Your task to perform on an android device: Show me popular videos on Youtube Image 0: 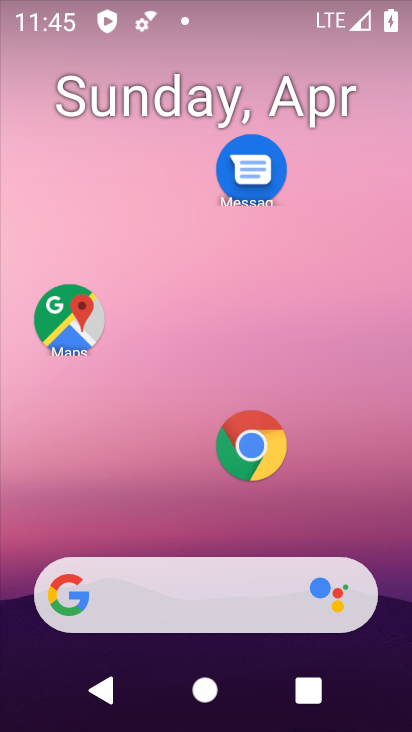
Step 0: drag from (157, 602) to (295, 147)
Your task to perform on an android device: Show me popular videos on Youtube Image 1: 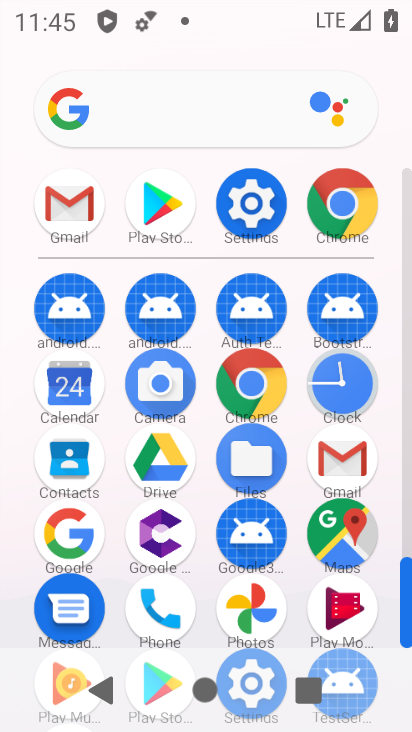
Step 1: drag from (196, 652) to (345, 302)
Your task to perform on an android device: Show me popular videos on Youtube Image 2: 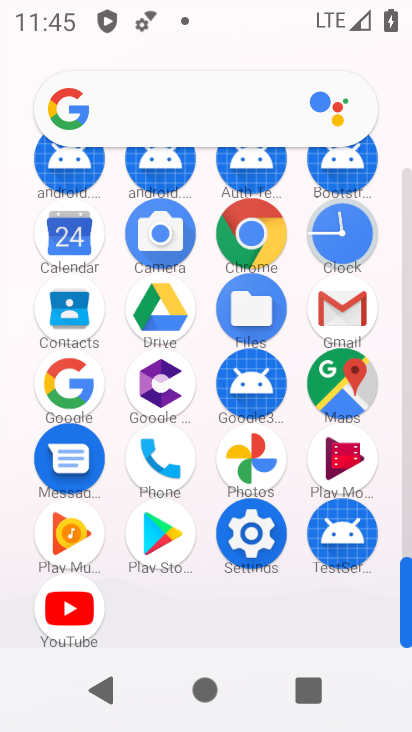
Step 2: click (72, 613)
Your task to perform on an android device: Show me popular videos on Youtube Image 3: 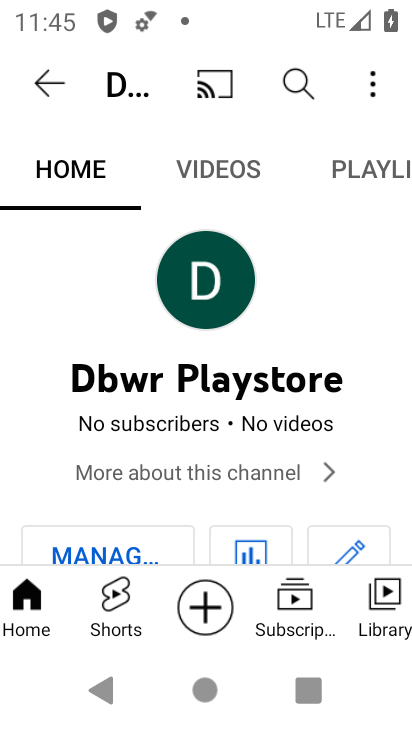
Step 3: click (40, 70)
Your task to perform on an android device: Show me popular videos on Youtube Image 4: 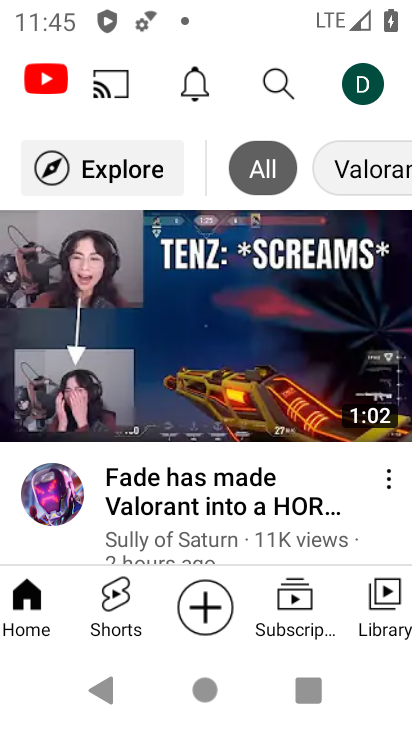
Step 4: task complete